Your task to perform on an android device: Open network settings Image 0: 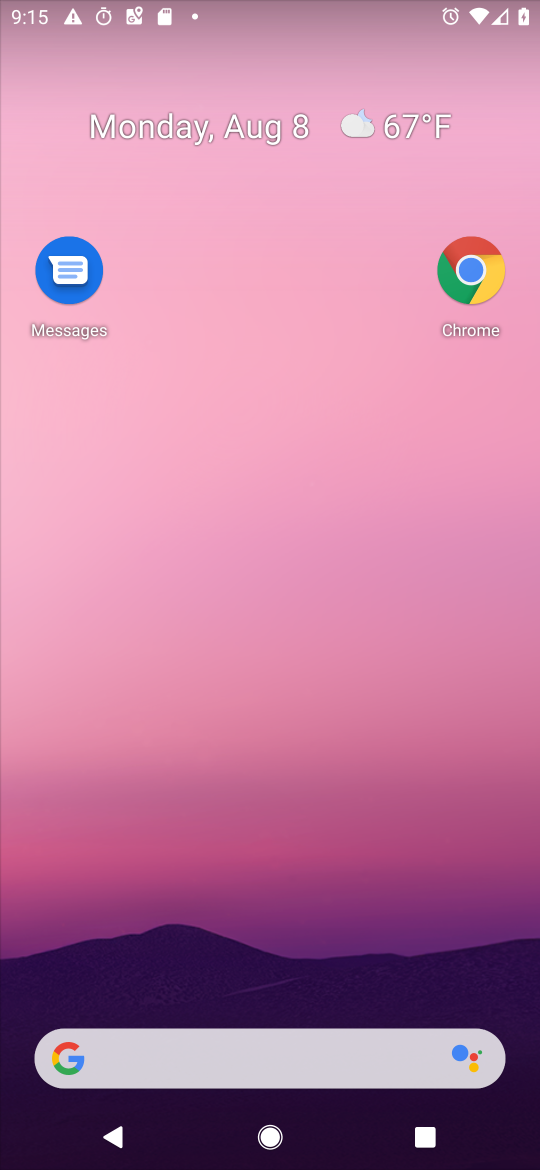
Step 0: click (433, 277)
Your task to perform on an android device: Open network settings Image 1: 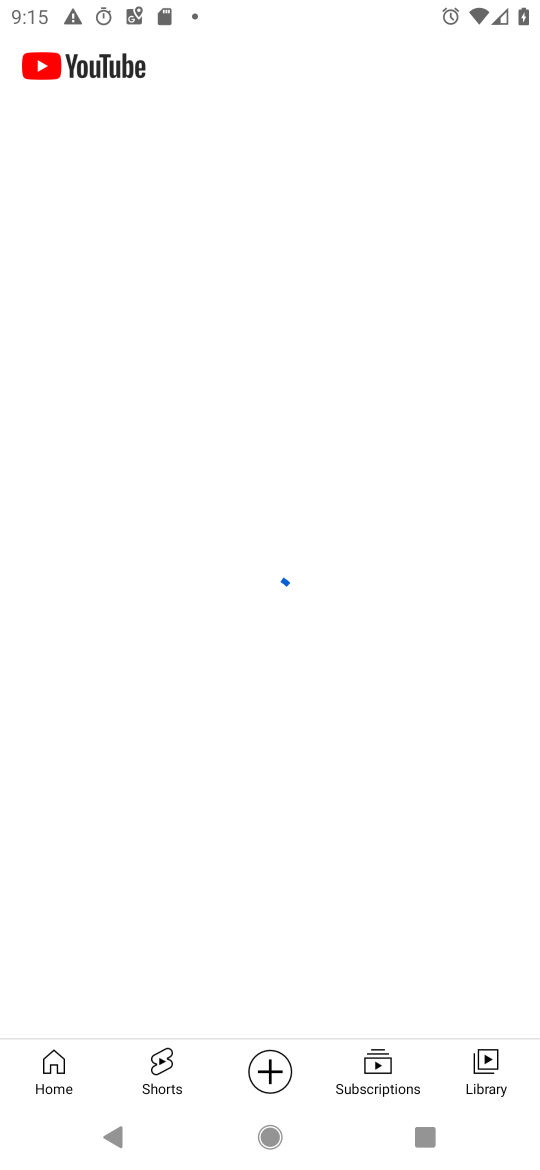
Step 1: drag from (286, 1003) to (121, 9)
Your task to perform on an android device: Open network settings Image 2: 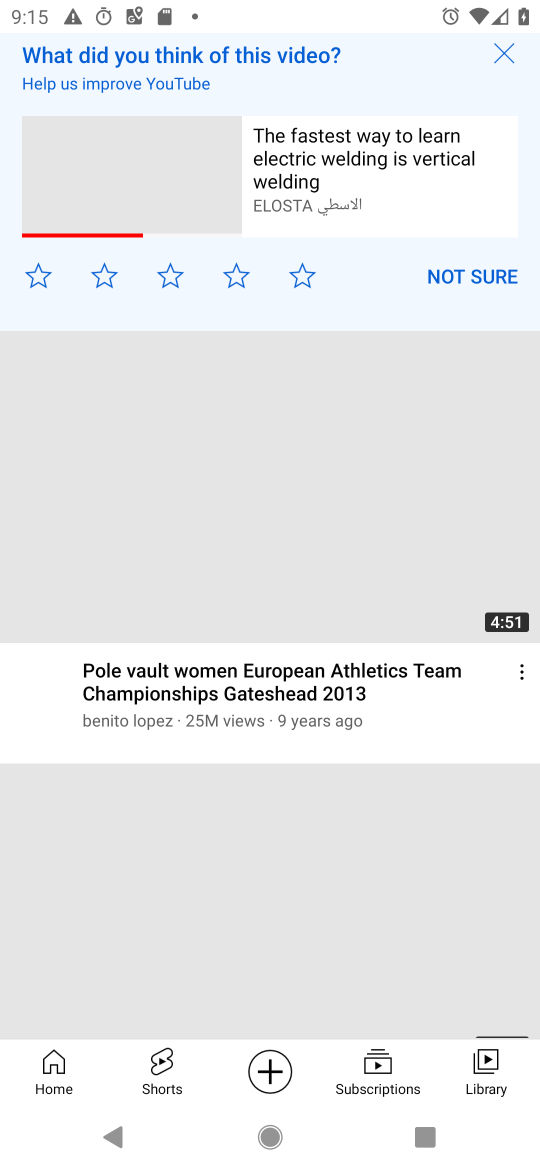
Step 2: press home button
Your task to perform on an android device: Open network settings Image 3: 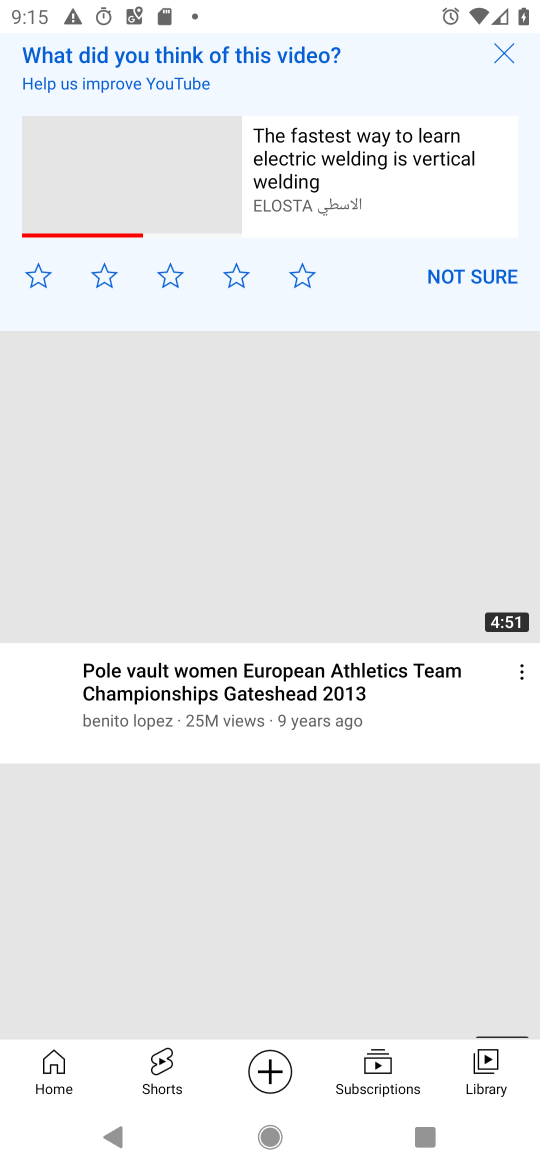
Step 3: click (319, 109)
Your task to perform on an android device: Open network settings Image 4: 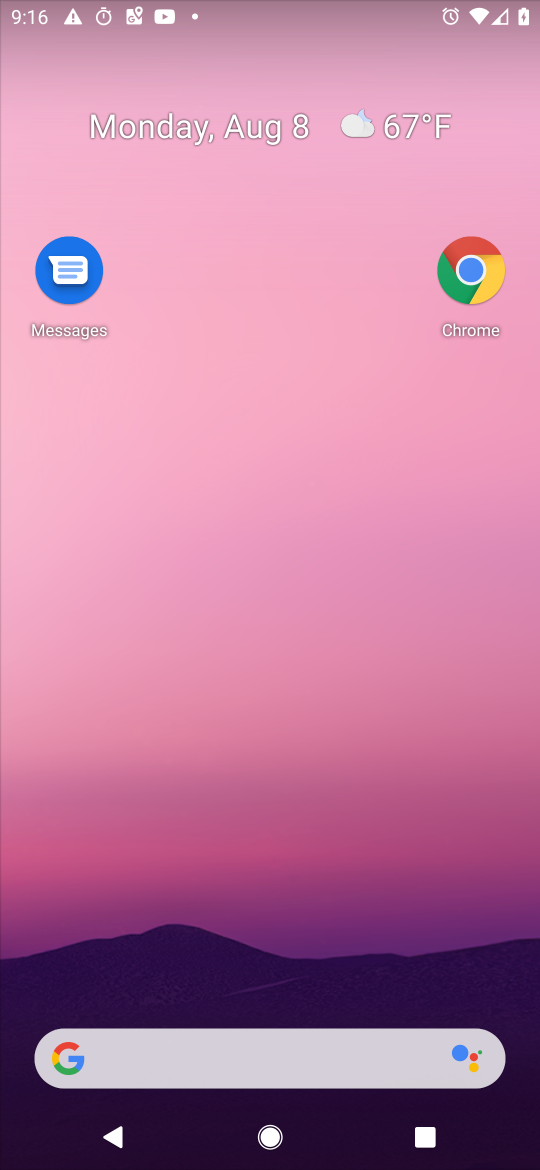
Step 4: press home button
Your task to perform on an android device: Open network settings Image 5: 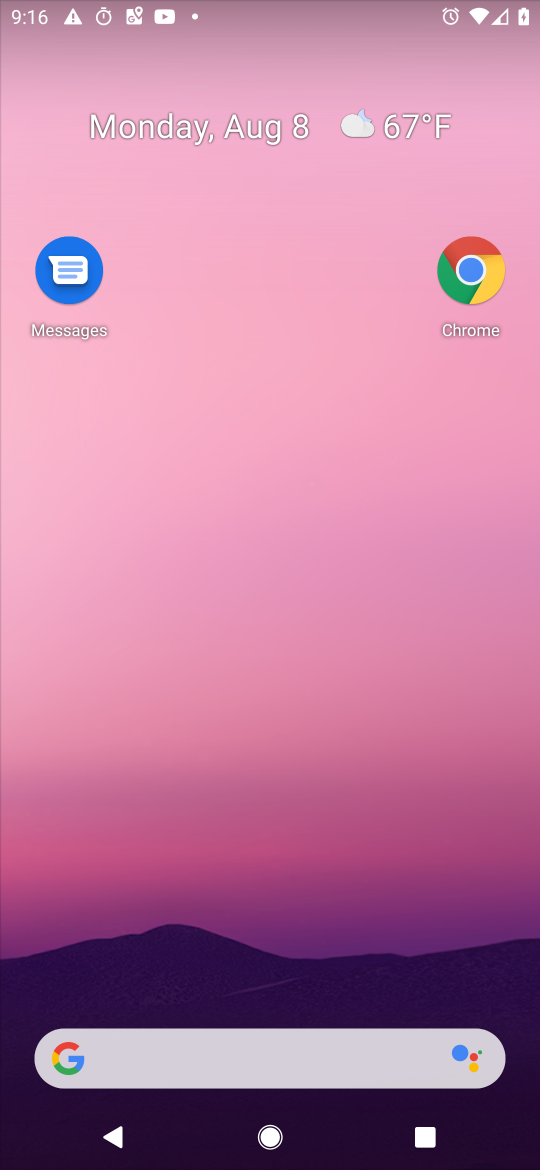
Step 5: drag from (269, 816) to (356, 133)
Your task to perform on an android device: Open network settings Image 6: 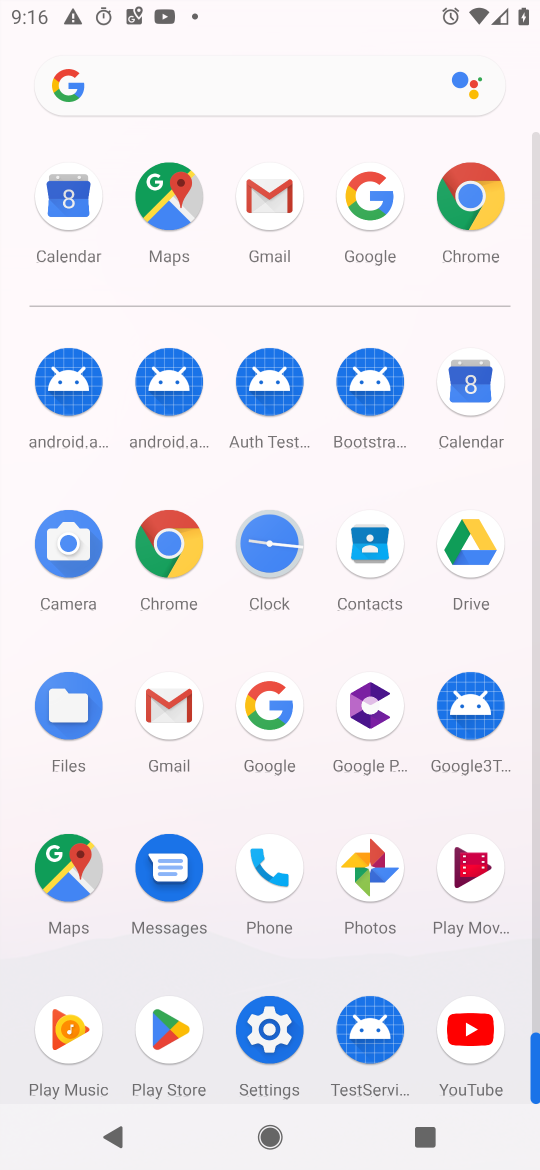
Step 6: click (259, 1027)
Your task to perform on an android device: Open network settings Image 7: 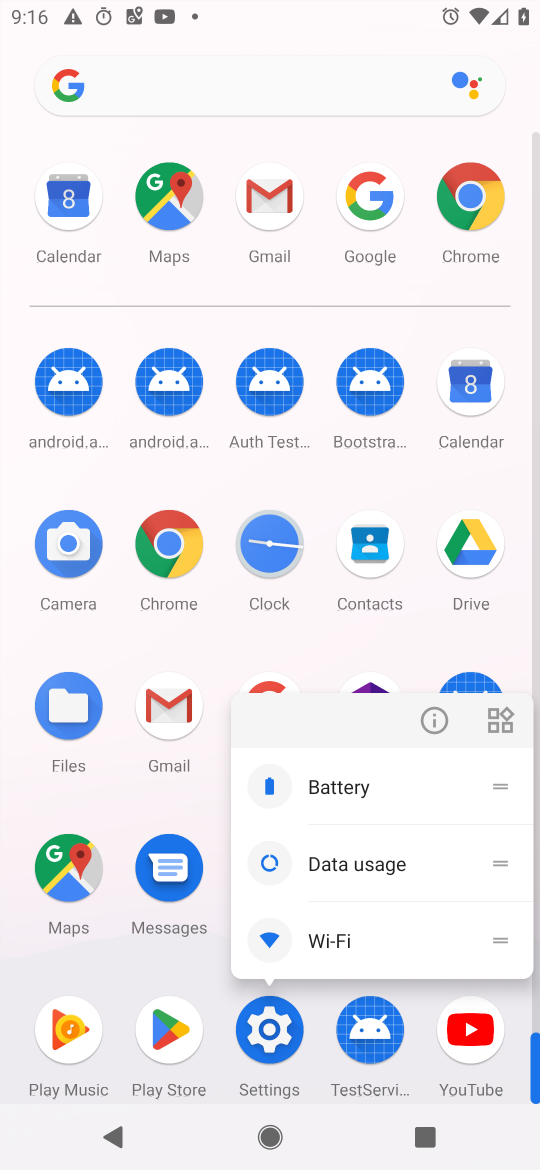
Step 7: click (428, 700)
Your task to perform on an android device: Open network settings Image 8: 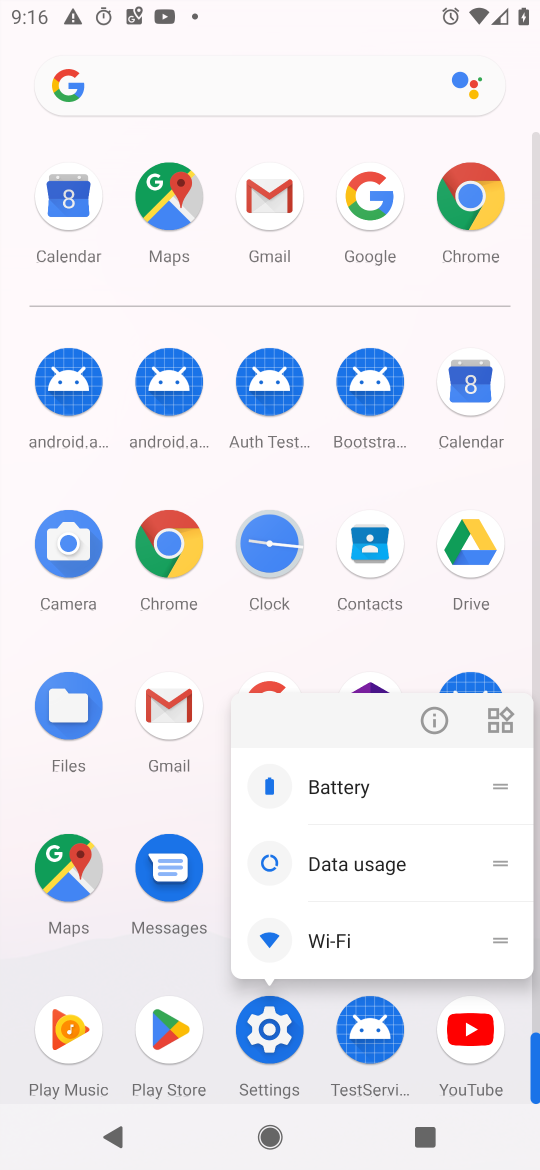
Step 8: click (428, 700)
Your task to perform on an android device: Open network settings Image 9: 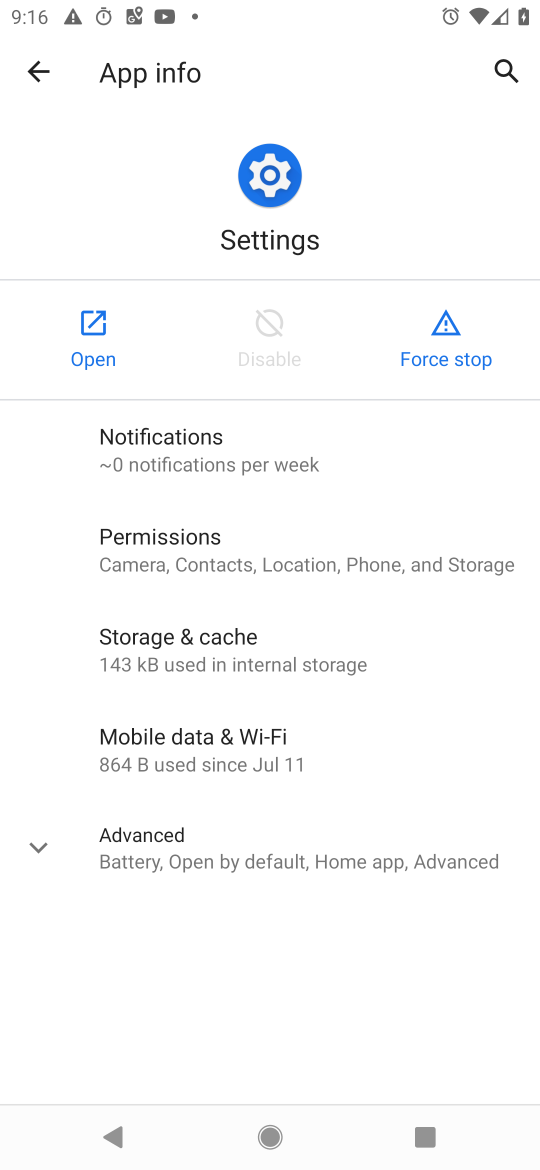
Step 9: click (104, 352)
Your task to perform on an android device: Open network settings Image 10: 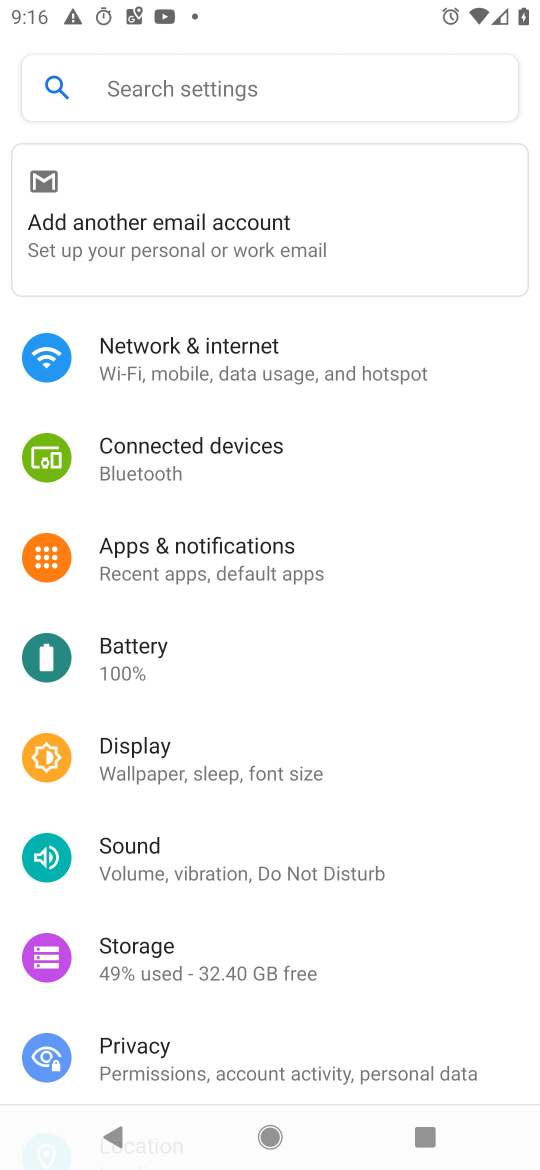
Step 10: drag from (253, 609) to (249, 348)
Your task to perform on an android device: Open network settings Image 11: 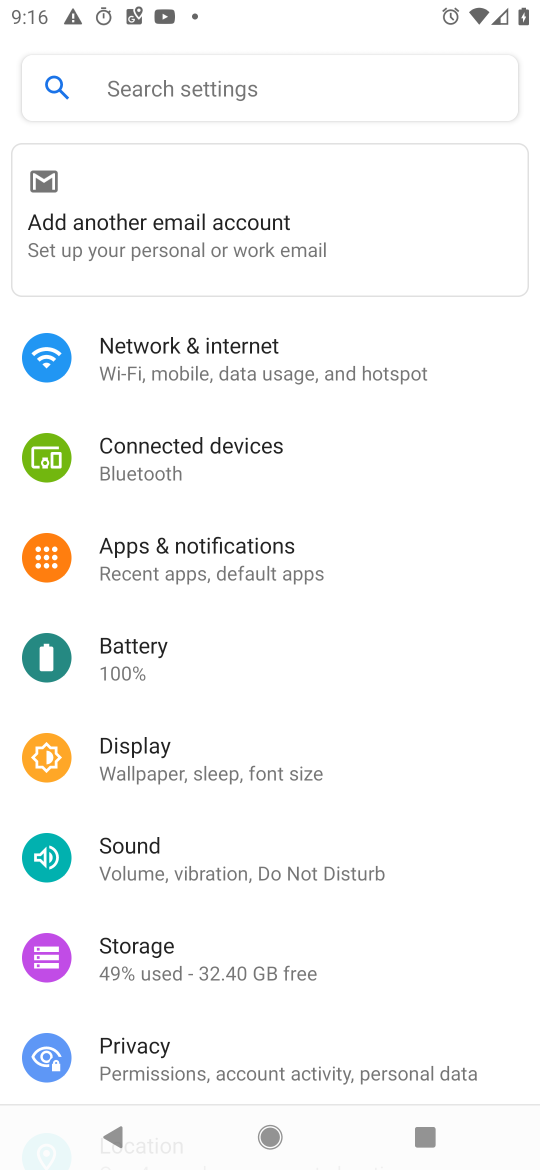
Step 11: click (251, 370)
Your task to perform on an android device: Open network settings Image 12: 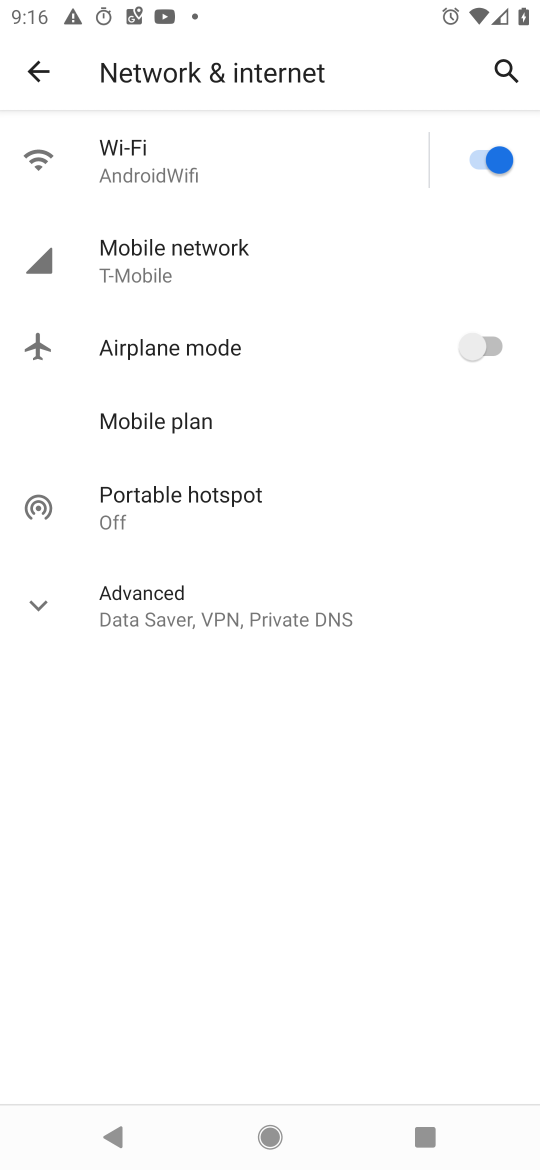
Step 12: click (250, 257)
Your task to perform on an android device: Open network settings Image 13: 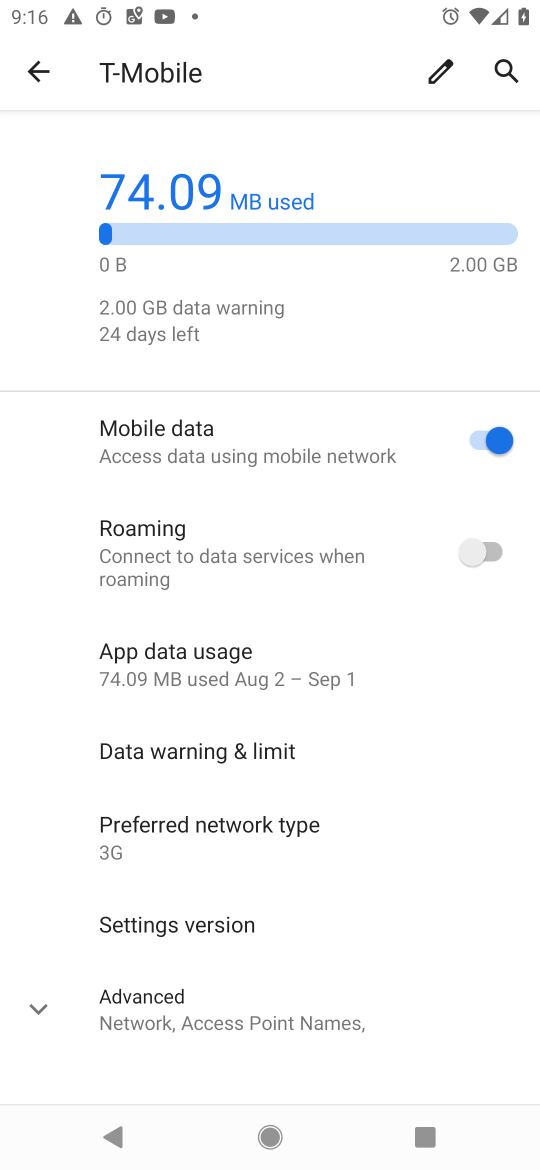
Step 13: task complete